Your task to perform on an android device: Go to network settings Image 0: 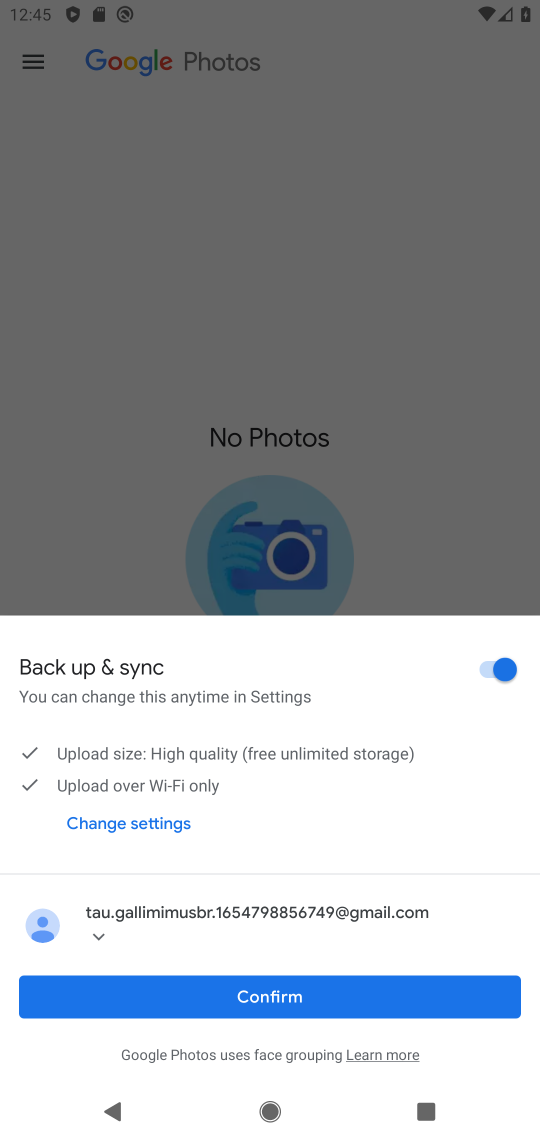
Step 0: press home button
Your task to perform on an android device: Go to network settings Image 1: 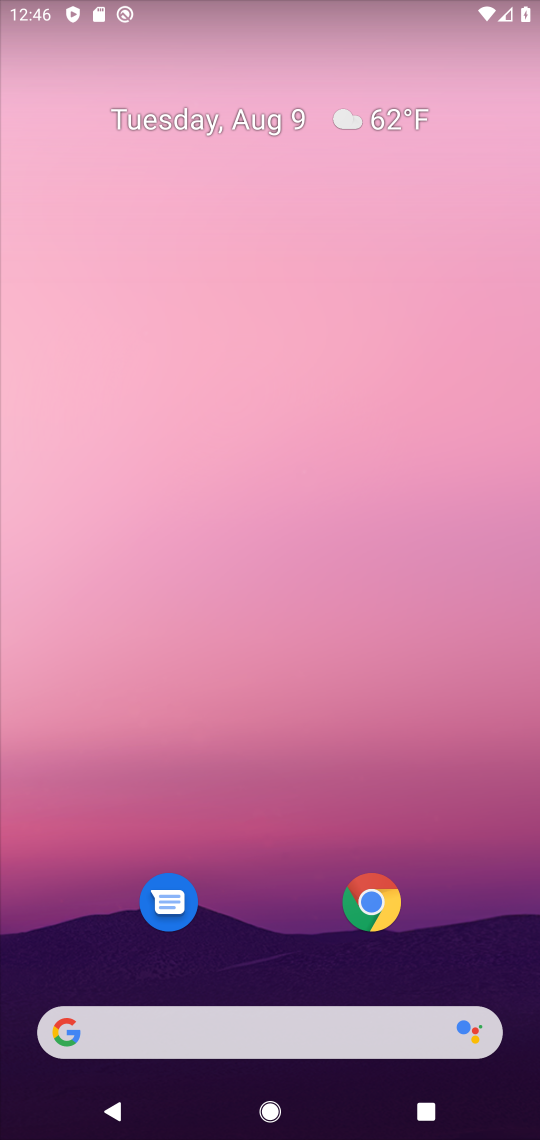
Step 1: drag from (225, 945) to (249, 126)
Your task to perform on an android device: Go to network settings Image 2: 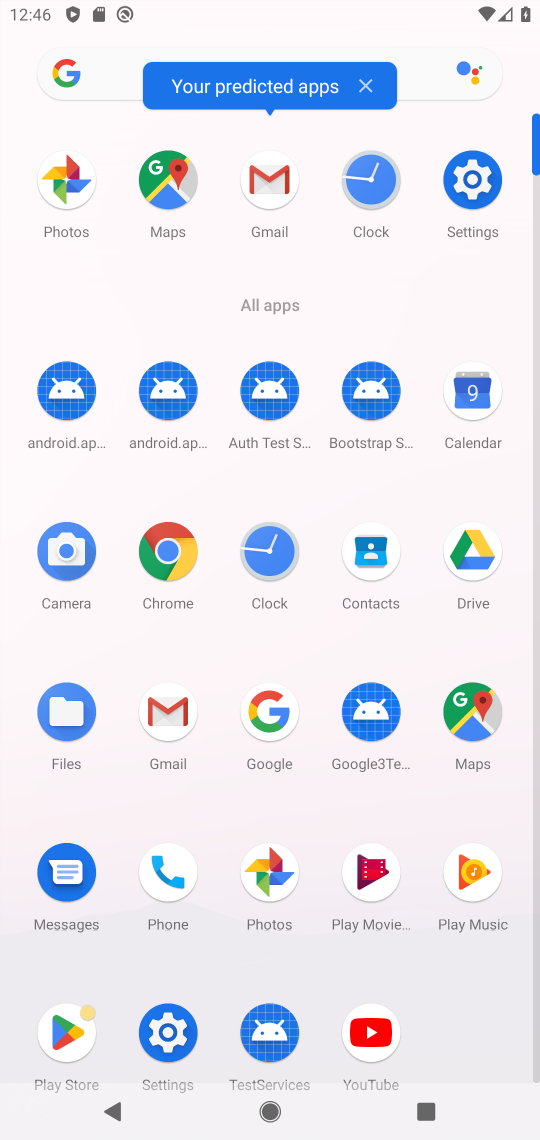
Step 2: click (465, 176)
Your task to perform on an android device: Go to network settings Image 3: 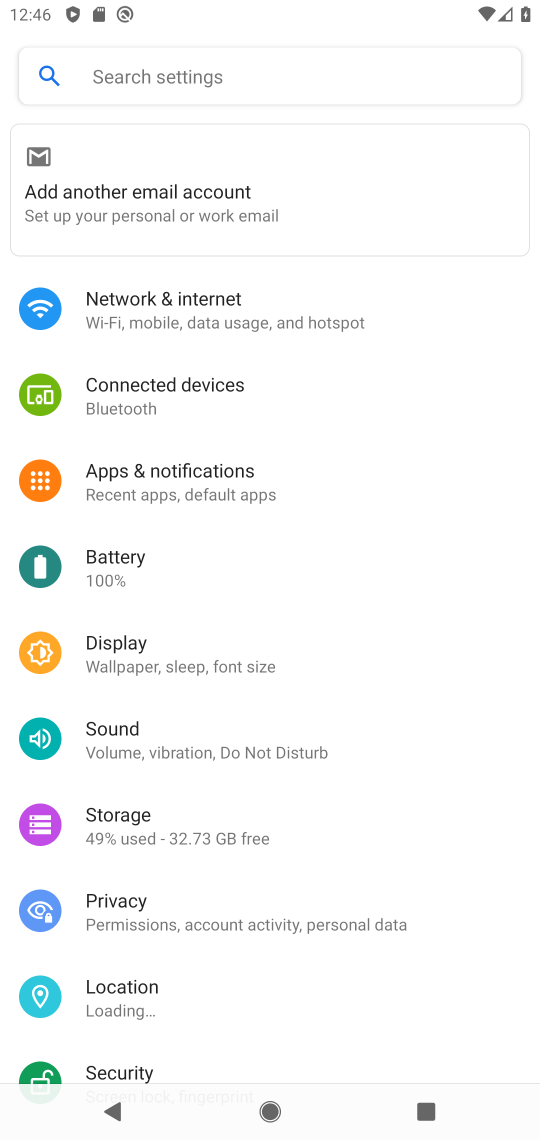
Step 3: click (124, 304)
Your task to perform on an android device: Go to network settings Image 4: 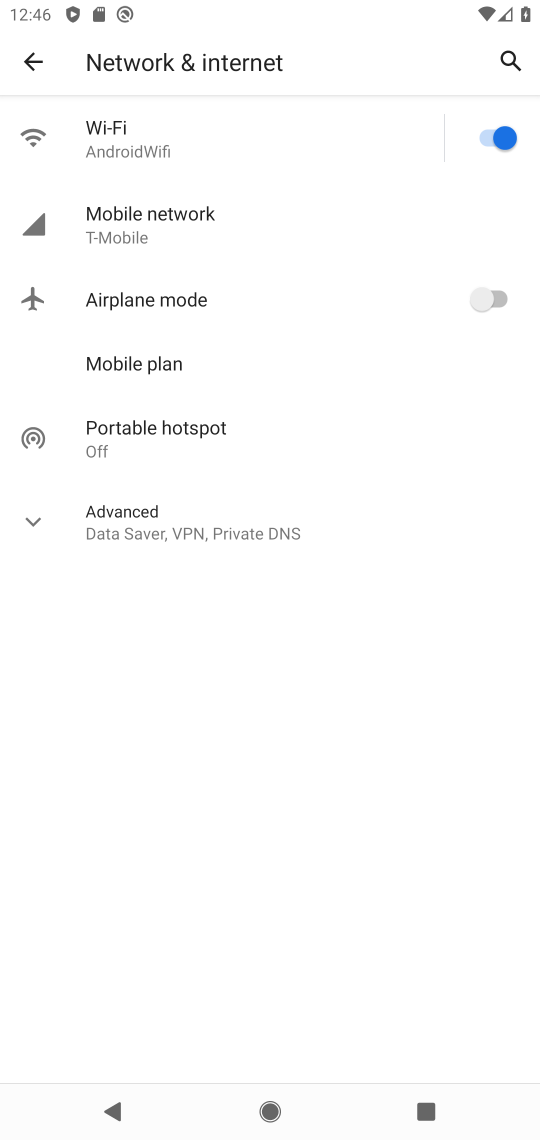
Step 4: click (93, 217)
Your task to perform on an android device: Go to network settings Image 5: 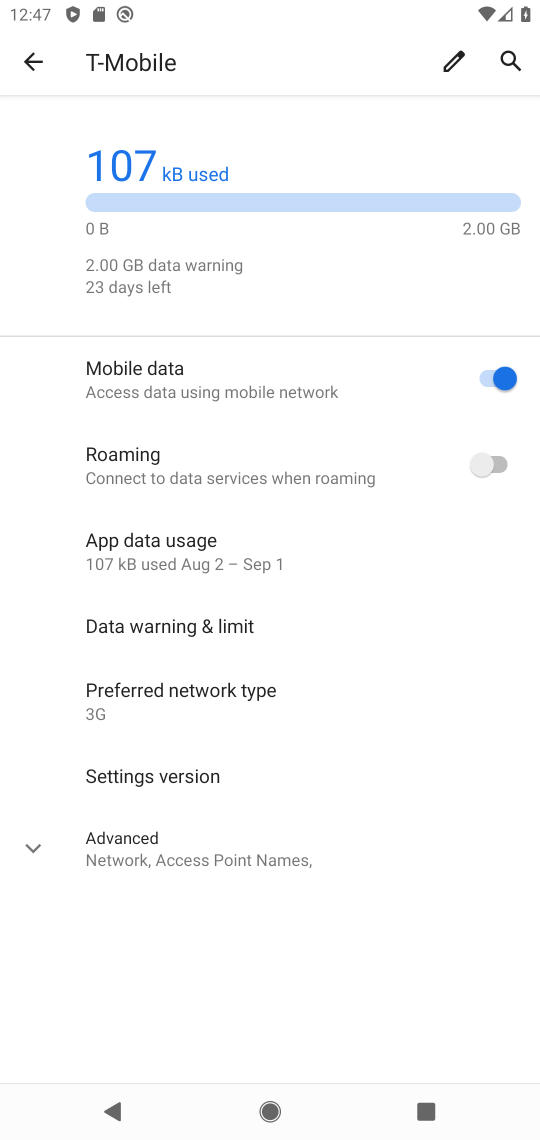
Step 5: click (110, 848)
Your task to perform on an android device: Go to network settings Image 6: 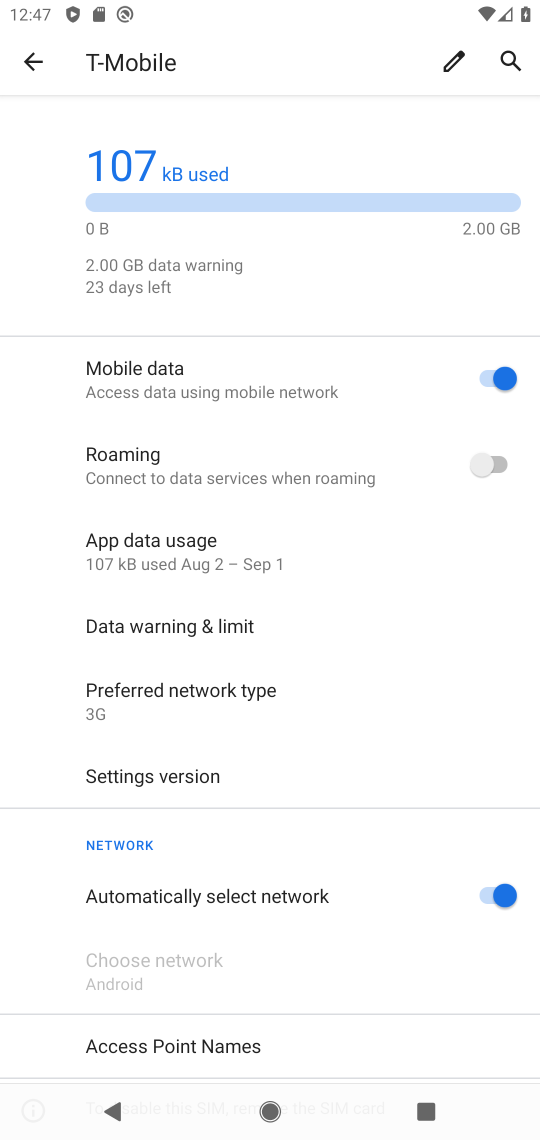
Step 6: task complete